Your task to perform on an android device: turn off location Image 0: 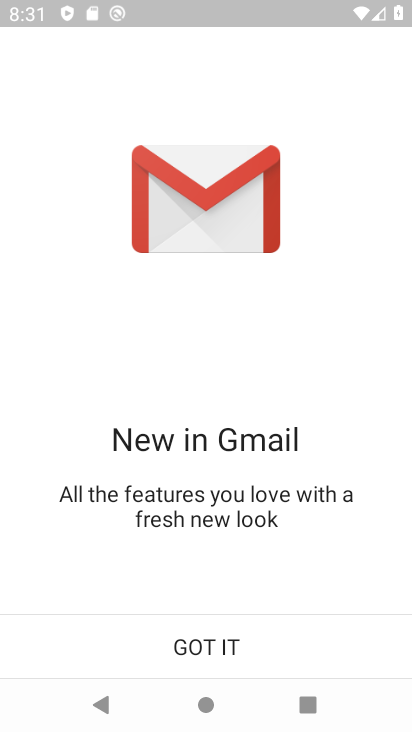
Step 0: press home button
Your task to perform on an android device: turn off location Image 1: 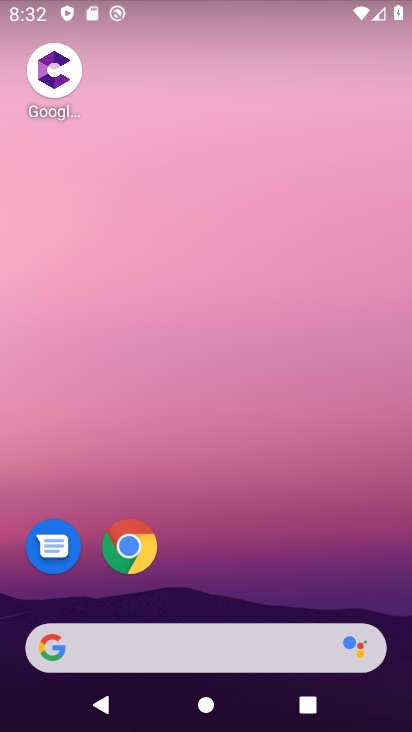
Step 1: drag from (241, 709) to (277, 210)
Your task to perform on an android device: turn off location Image 2: 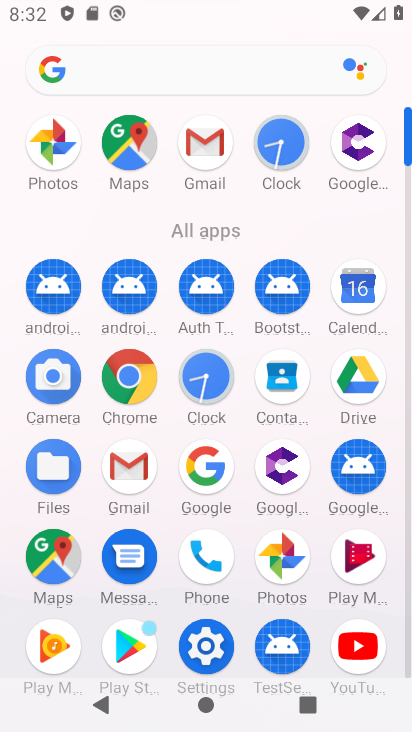
Step 2: click (196, 650)
Your task to perform on an android device: turn off location Image 3: 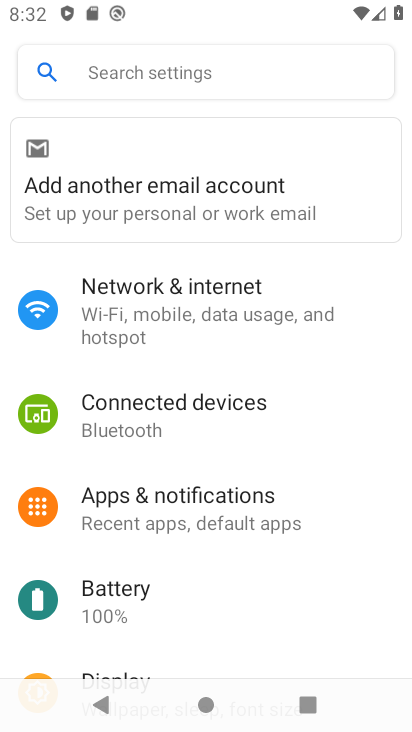
Step 3: click (169, 81)
Your task to perform on an android device: turn off location Image 4: 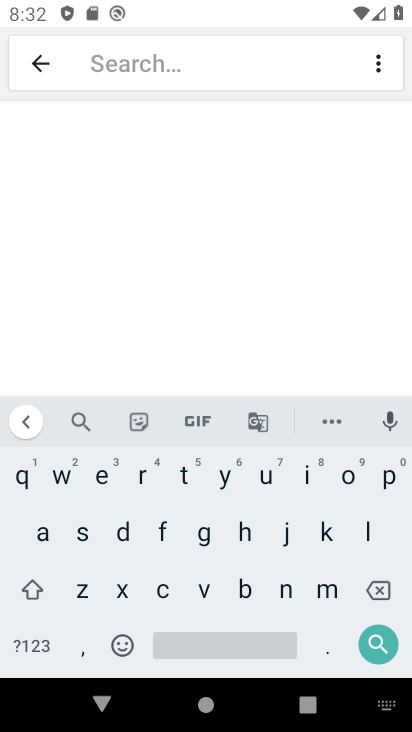
Step 4: click (366, 534)
Your task to perform on an android device: turn off location Image 5: 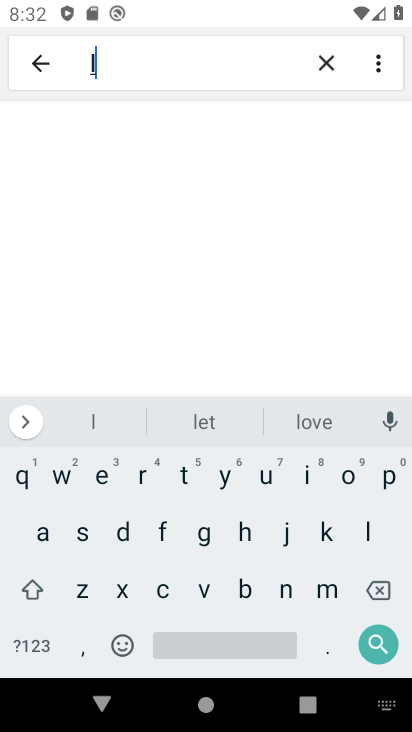
Step 5: click (344, 478)
Your task to perform on an android device: turn off location Image 6: 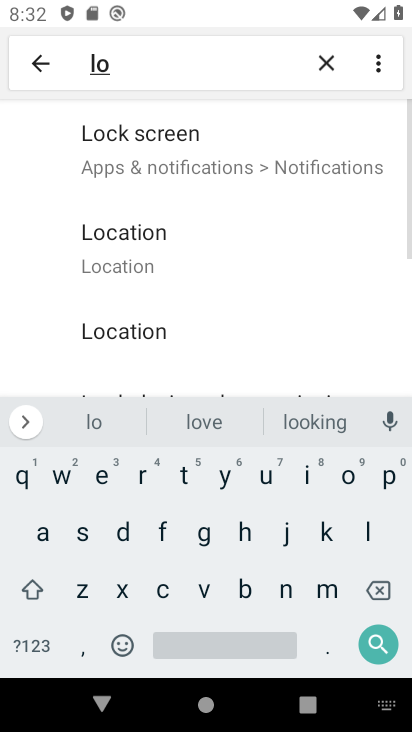
Step 6: click (146, 263)
Your task to perform on an android device: turn off location Image 7: 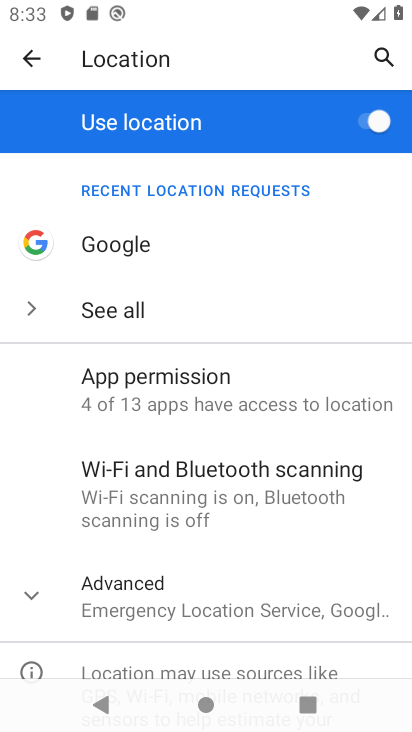
Step 7: click (380, 101)
Your task to perform on an android device: turn off location Image 8: 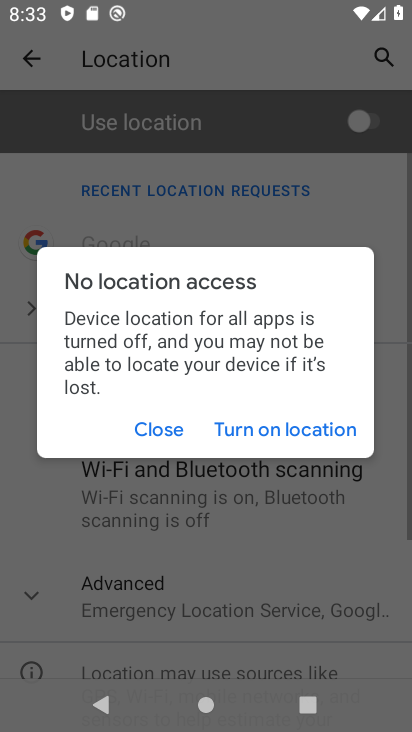
Step 8: task complete